Your task to perform on an android device: change timer sound Image 0: 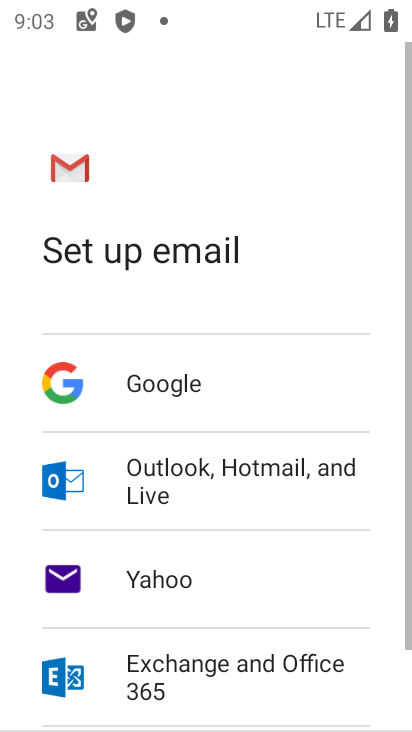
Step 0: press home button
Your task to perform on an android device: change timer sound Image 1: 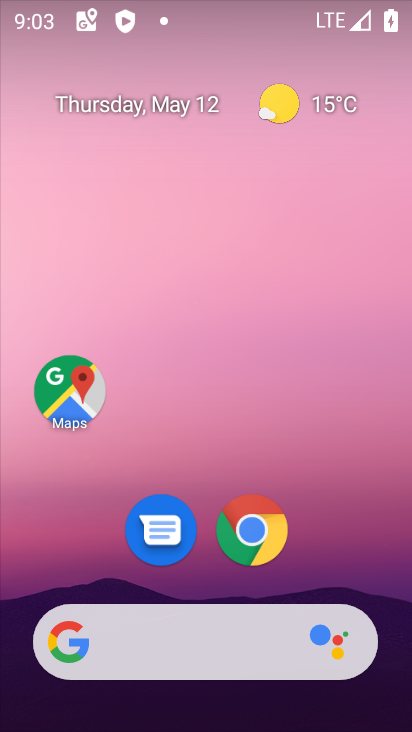
Step 1: drag from (193, 704) to (164, 86)
Your task to perform on an android device: change timer sound Image 2: 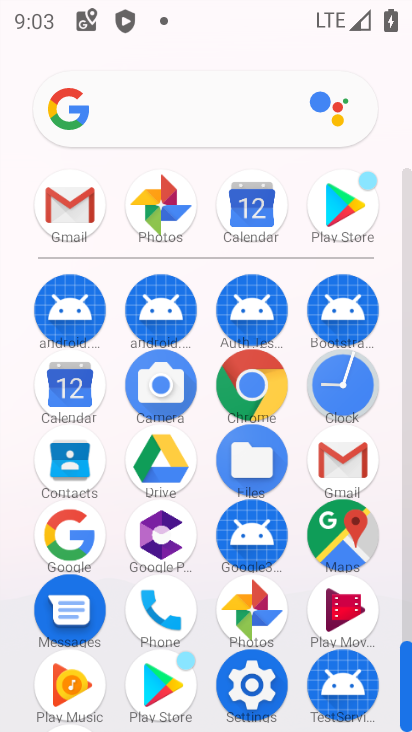
Step 2: click (255, 691)
Your task to perform on an android device: change timer sound Image 3: 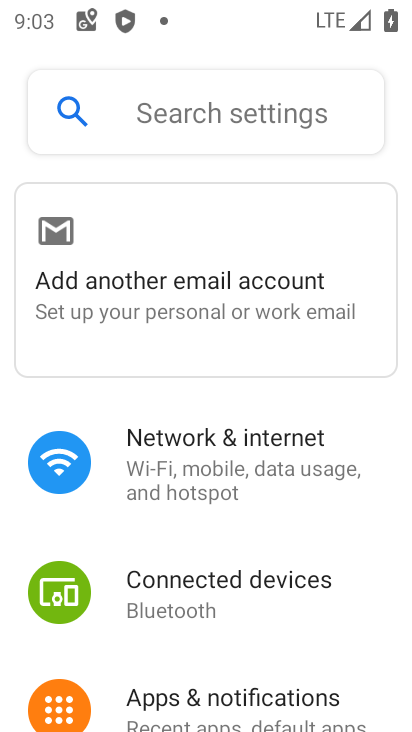
Step 3: press back button
Your task to perform on an android device: change timer sound Image 4: 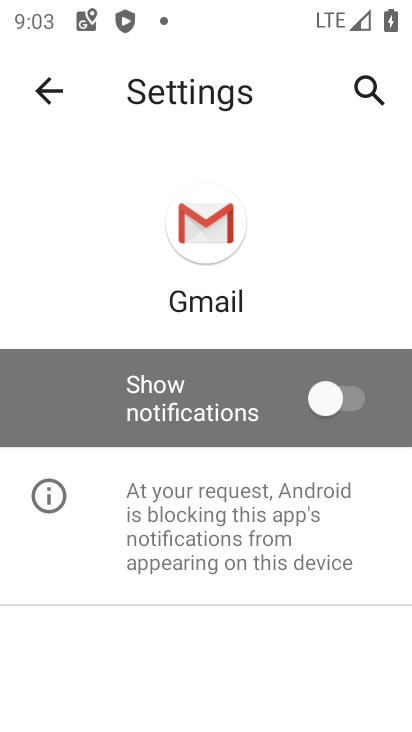
Step 4: press home button
Your task to perform on an android device: change timer sound Image 5: 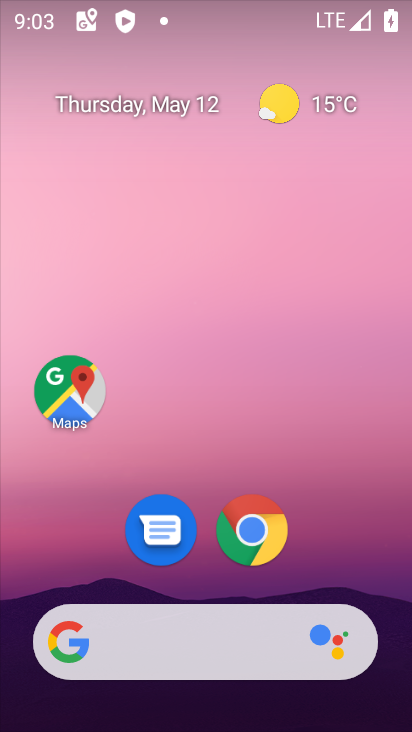
Step 5: drag from (220, 696) to (246, 95)
Your task to perform on an android device: change timer sound Image 6: 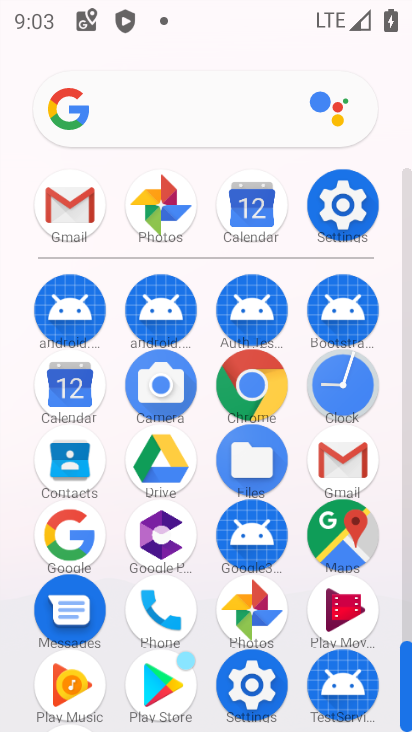
Step 6: click (362, 400)
Your task to perform on an android device: change timer sound Image 7: 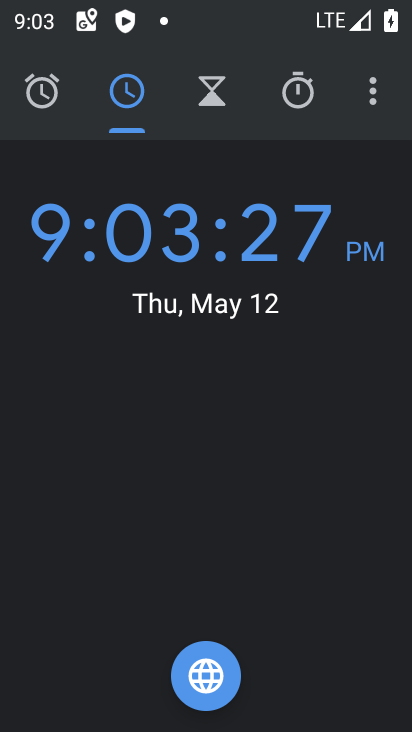
Step 7: click (378, 93)
Your task to perform on an android device: change timer sound Image 8: 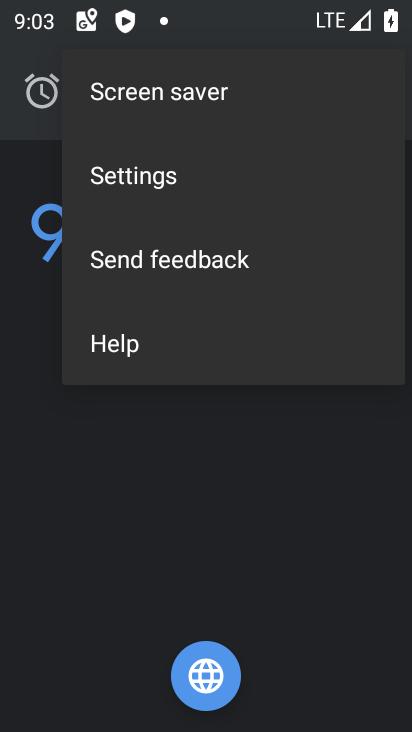
Step 8: click (167, 170)
Your task to perform on an android device: change timer sound Image 9: 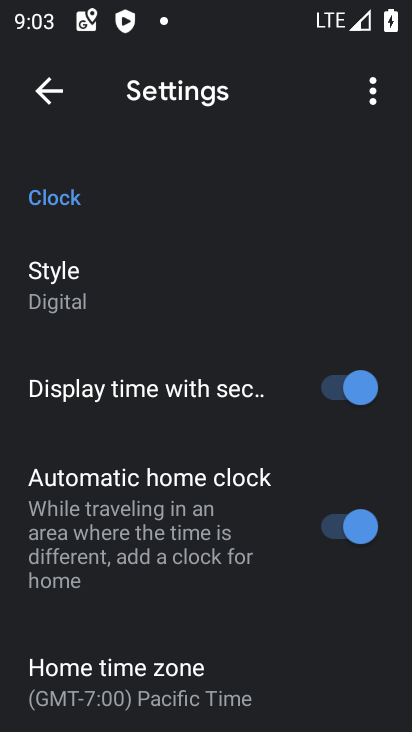
Step 9: drag from (120, 621) to (123, 46)
Your task to perform on an android device: change timer sound Image 10: 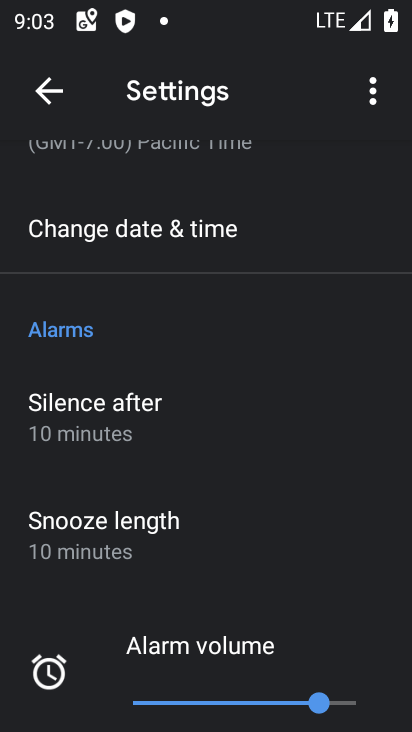
Step 10: drag from (131, 591) to (161, 209)
Your task to perform on an android device: change timer sound Image 11: 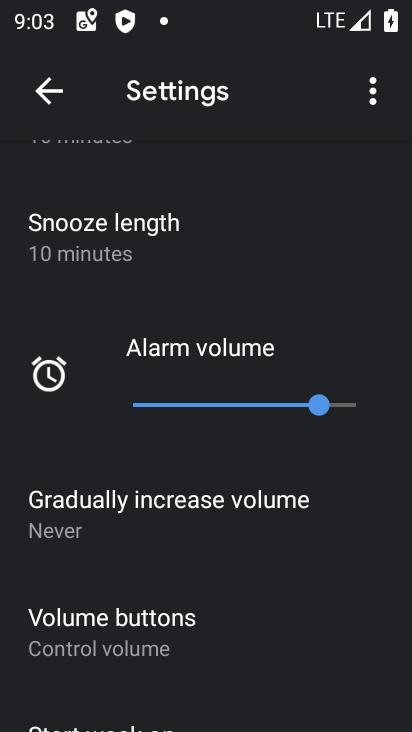
Step 11: drag from (143, 669) to (161, 177)
Your task to perform on an android device: change timer sound Image 12: 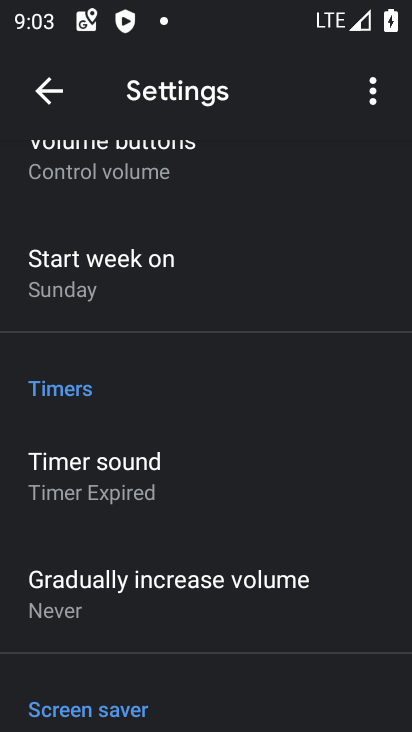
Step 12: click (143, 477)
Your task to perform on an android device: change timer sound Image 13: 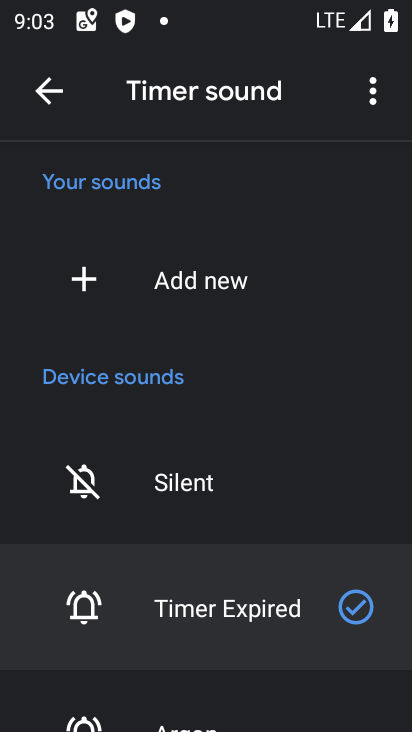
Step 13: drag from (212, 592) to (182, 158)
Your task to perform on an android device: change timer sound Image 14: 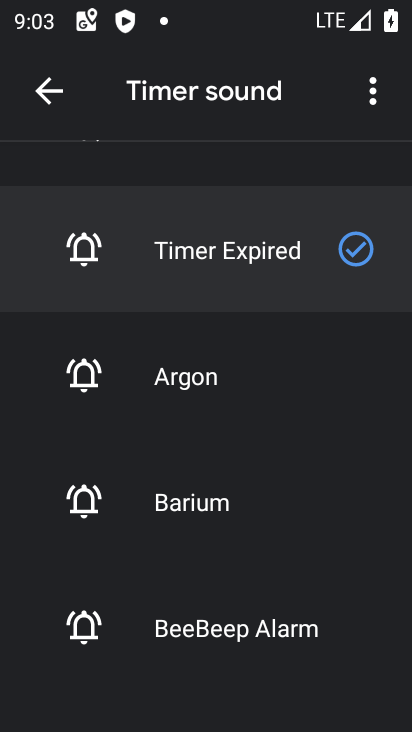
Step 14: click (168, 637)
Your task to perform on an android device: change timer sound Image 15: 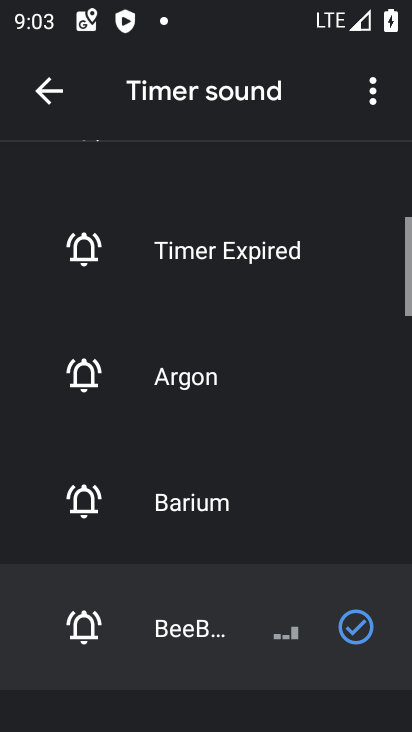
Step 15: task complete